Your task to perform on an android device: allow notifications from all sites in the chrome app Image 0: 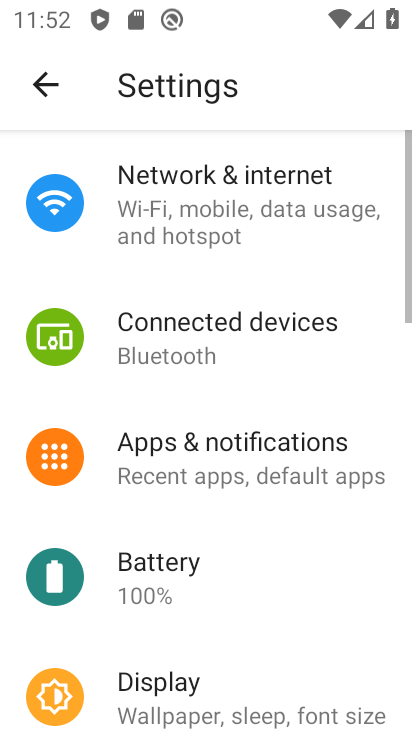
Step 0: press home button
Your task to perform on an android device: allow notifications from all sites in the chrome app Image 1: 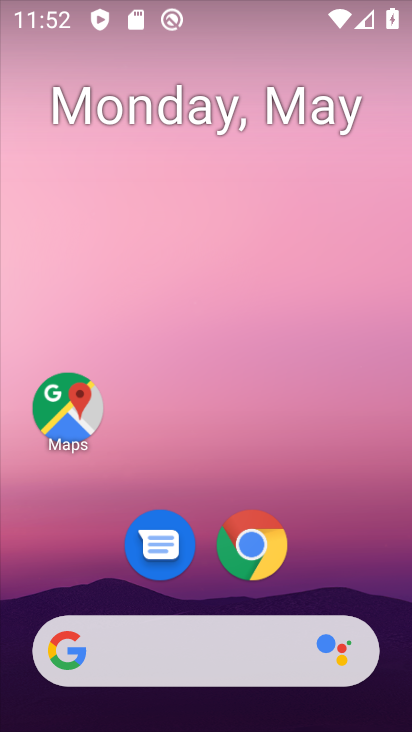
Step 1: click (249, 547)
Your task to perform on an android device: allow notifications from all sites in the chrome app Image 2: 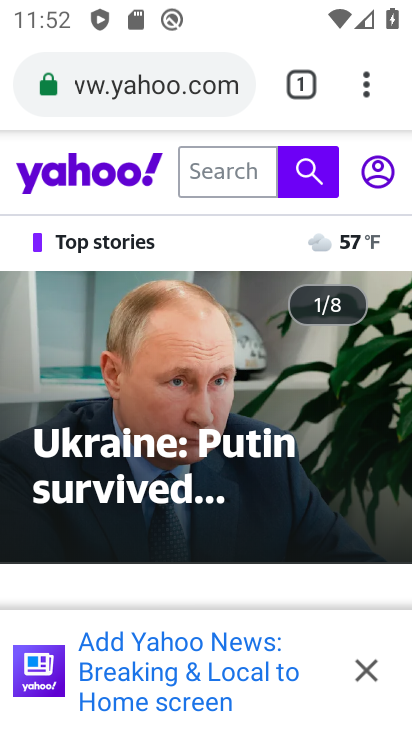
Step 2: click (372, 81)
Your task to perform on an android device: allow notifications from all sites in the chrome app Image 3: 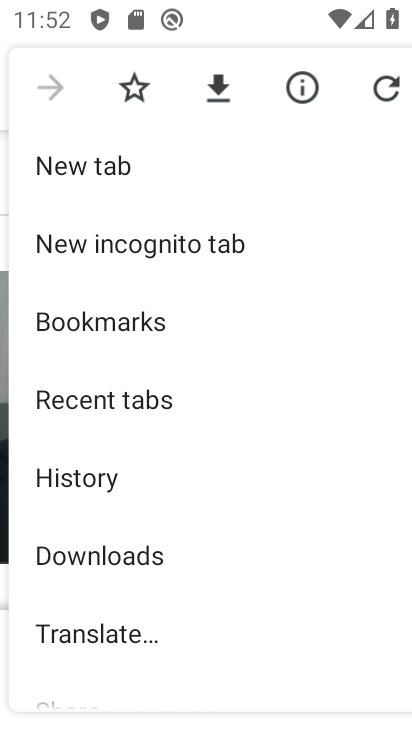
Step 3: drag from (114, 586) to (167, 234)
Your task to perform on an android device: allow notifications from all sites in the chrome app Image 4: 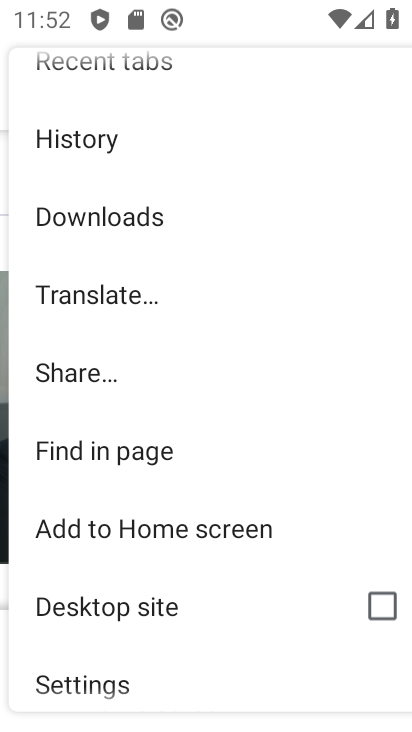
Step 4: drag from (110, 642) to (134, 144)
Your task to perform on an android device: allow notifications from all sites in the chrome app Image 5: 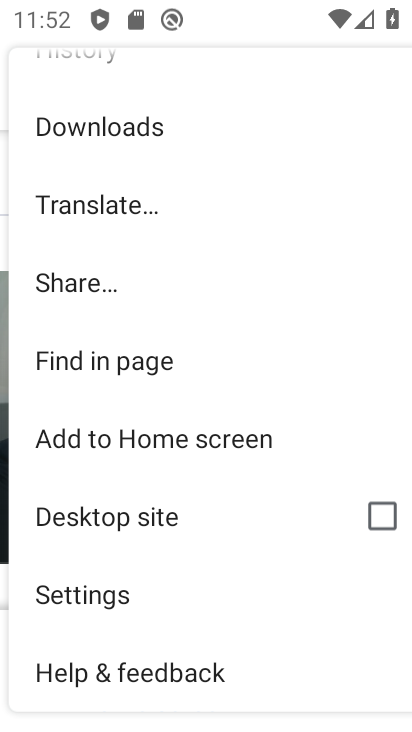
Step 5: click (97, 636)
Your task to perform on an android device: allow notifications from all sites in the chrome app Image 6: 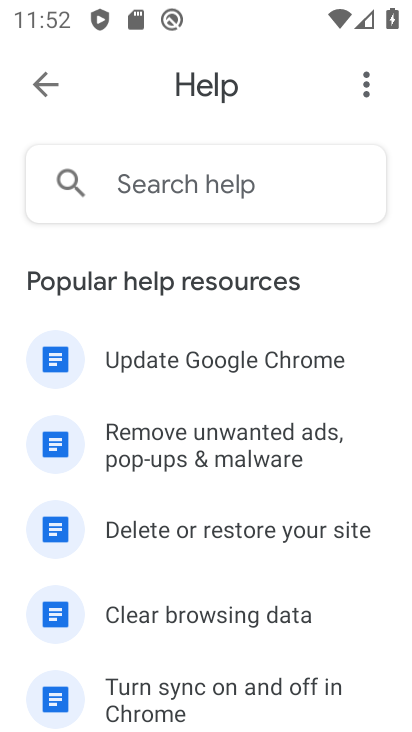
Step 6: click (40, 88)
Your task to perform on an android device: allow notifications from all sites in the chrome app Image 7: 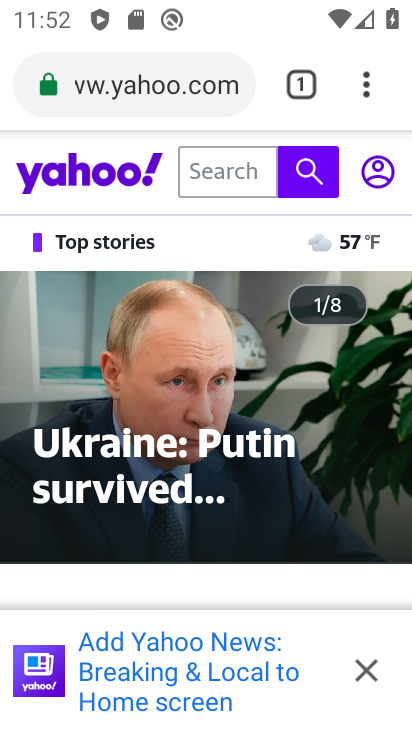
Step 7: click (373, 81)
Your task to perform on an android device: allow notifications from all sites in the chrome app Image 8: 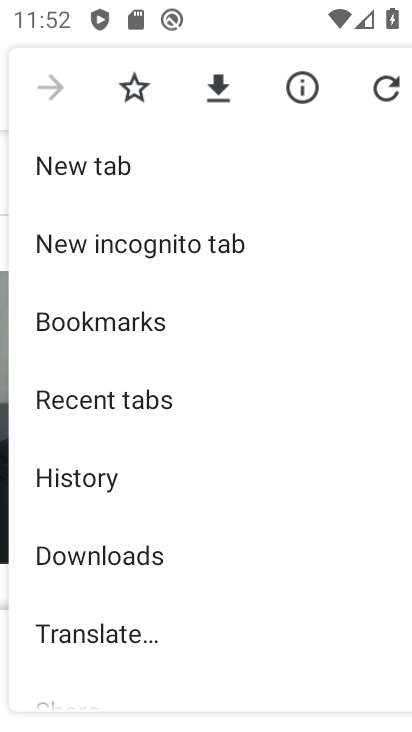
Step 8: drag from (153, 657) to (200, 57)
Your task to perform on an android device: allow notifications from all sites in the chrome app Image 9: 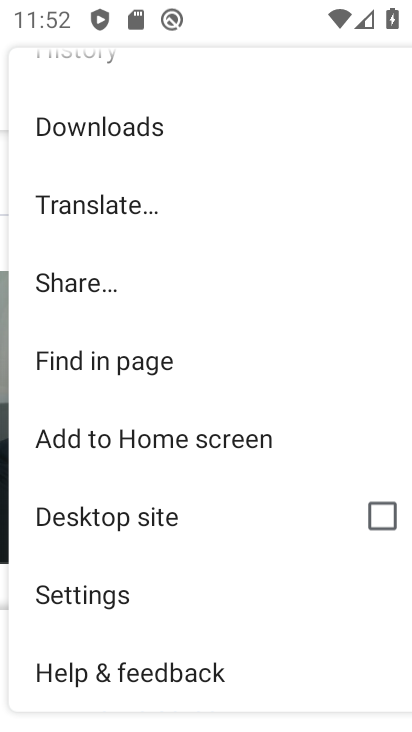
Step 9: click (47, 586)
Your task to perform on an android device: allow notifications from all sites in the chrome app Image 10: 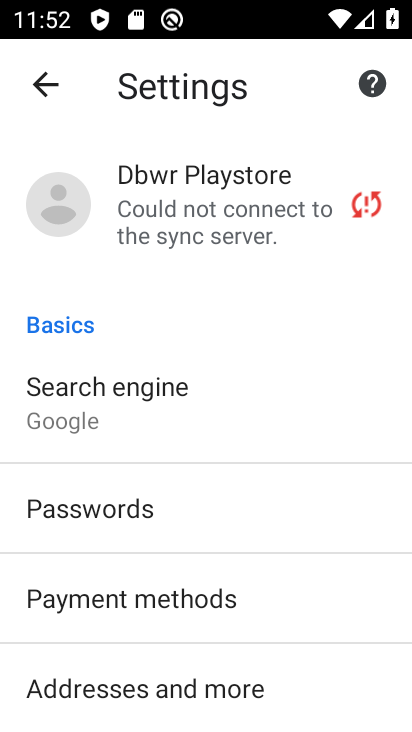
Step 10: drag from (176, 630) to (181, 162)
Your task to perform on an android device: allow notifications from all sites in the chrome app Image 11: 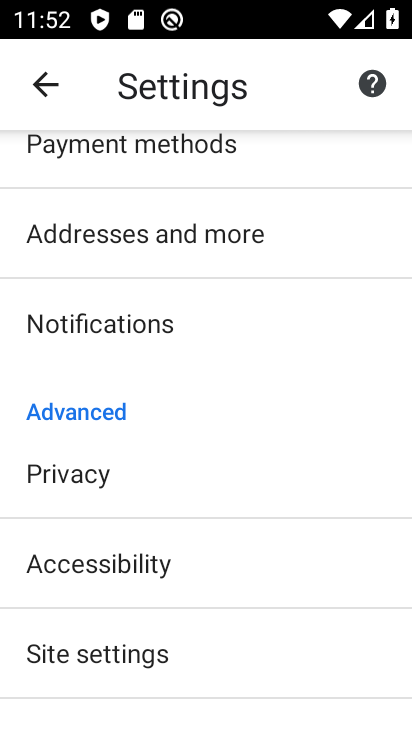
Step 11: click (139, 325)
Your task to perform on an android device: allow notifications from all sites in the chrome app Image 12: 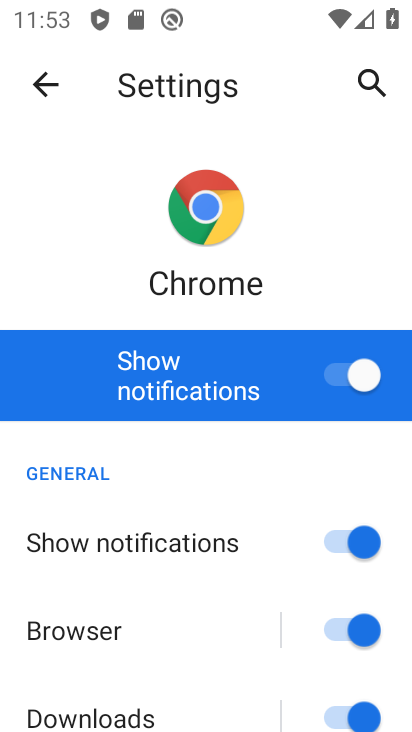
Step 12: task complete